Your task to perform on an android device: change notification settings in the gmail app Image 0: 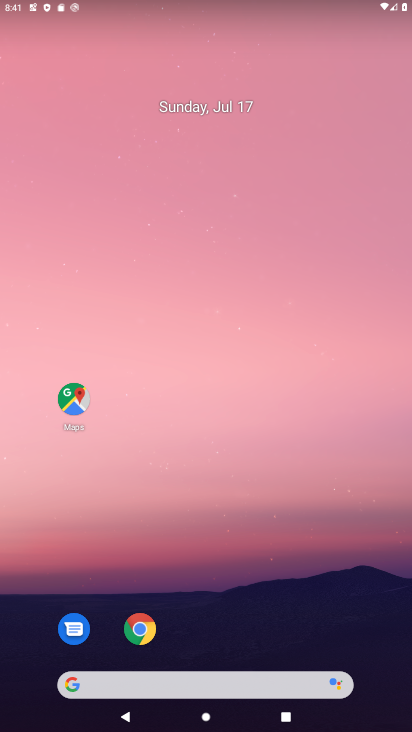
Step 0: drag from (230, 705) to (230, 1)
Your task to perform on an android device: change notification settings in the gmail app Image 1: 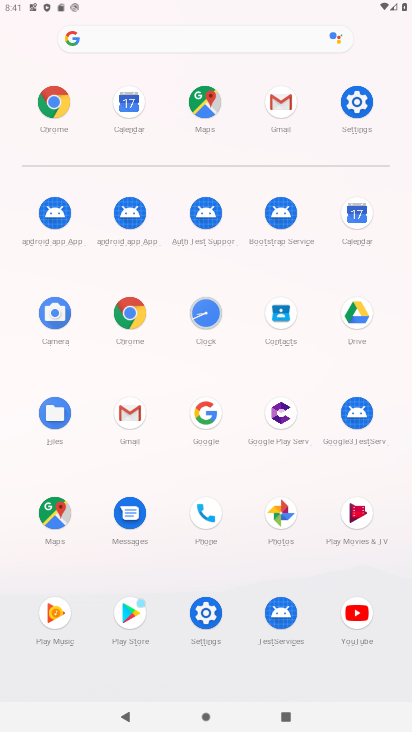
Step 1: click (134, 406)
Your task to perform on an android device: change notification settings in the gmail app Image 2: 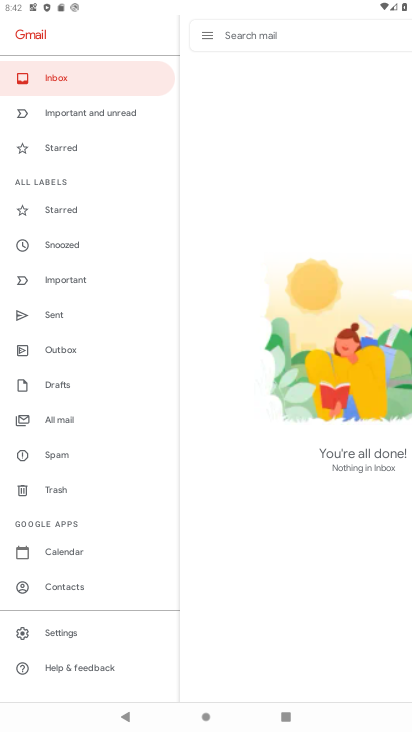
Step 2: click (69, 630)
Your task to perform on an android device: change notification settings in the gmail app Image 3: 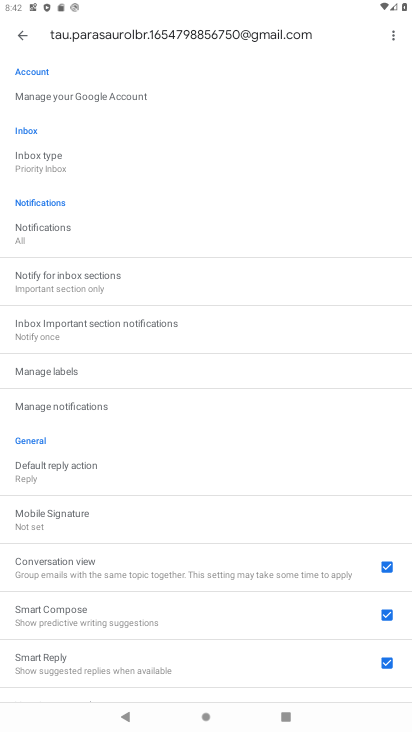
Step 3: click (34, 233)
Your task to perform on an android device: change notification settings in the gmail app Image 4: 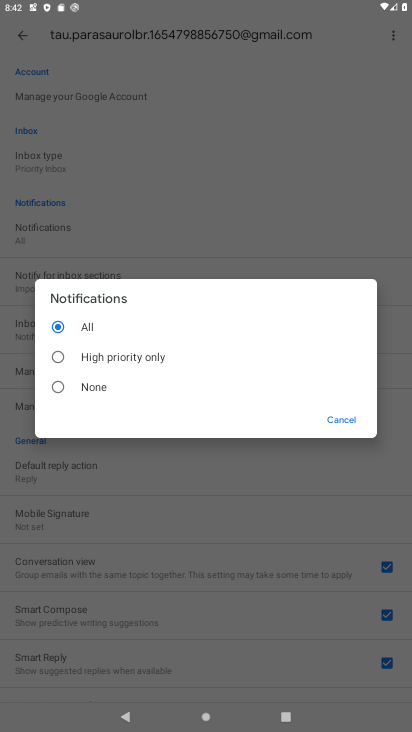
Step 4: click (63, 382)
Your task to perform on an android device: change notification settings in the gmail app Image 5: 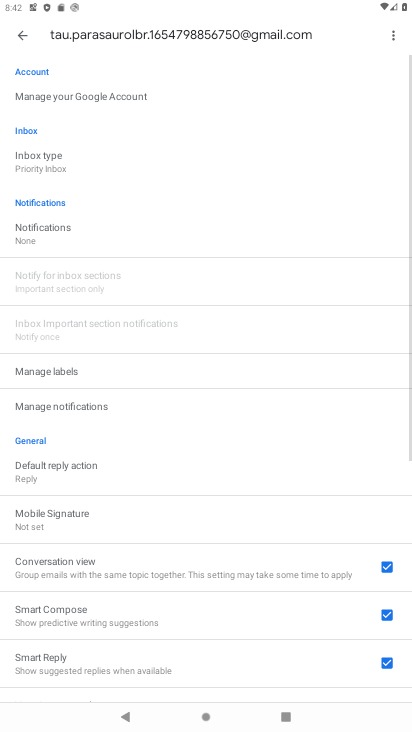
Step 5: task complete